Your task to perform on an android device: set default search engine in the chrome app Image 0: 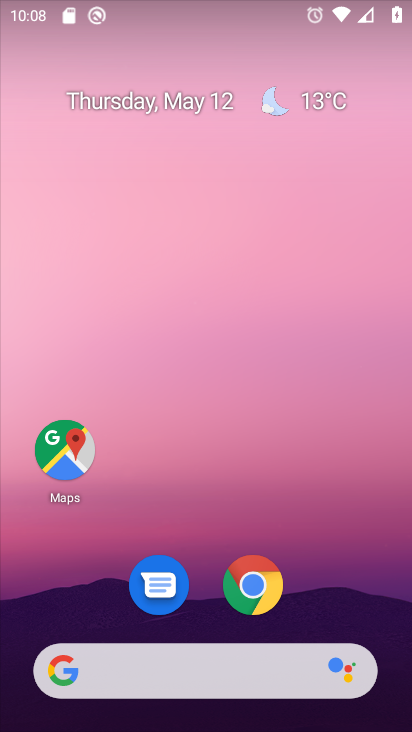
Step 0: click (271, 581)
Your task to perform on an android device: set default search engine in the chrome app Image 1: 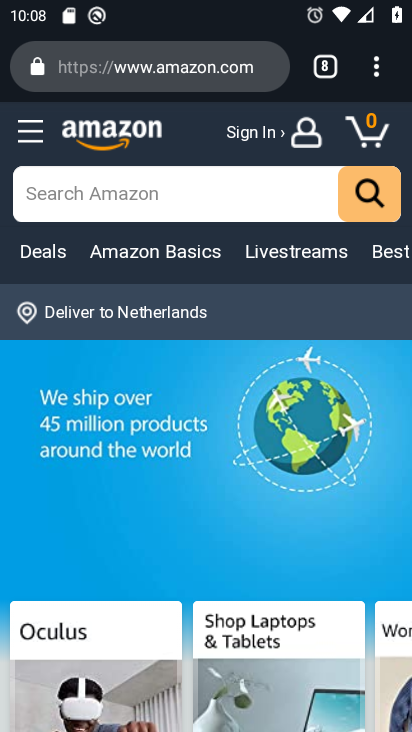
Step 1: click (377, 75)
Your task to perform on an android device: set default search engine in the chrome app Image 2: 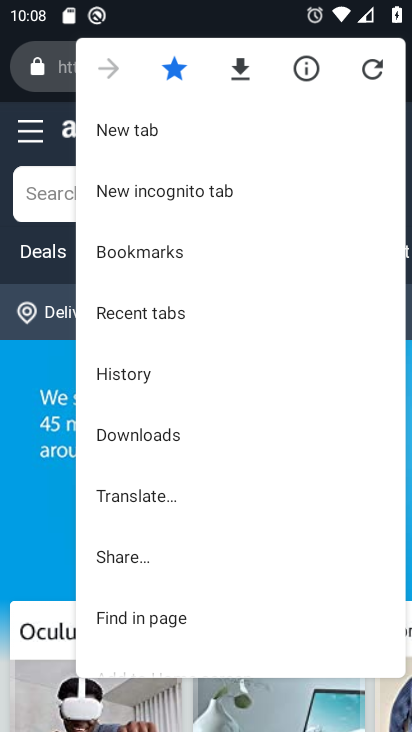
Step 2: drag from (234, 558) to (187, 237)
Your task to perform on an android device: set default search engine in the chrome app Image 3: 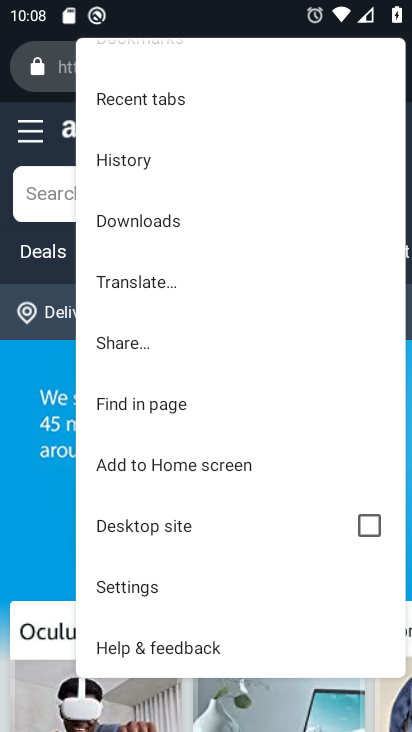
Step 3: click (199, 573)
Your task to perform on an android device: set default search engine in the chrome app Image 4: 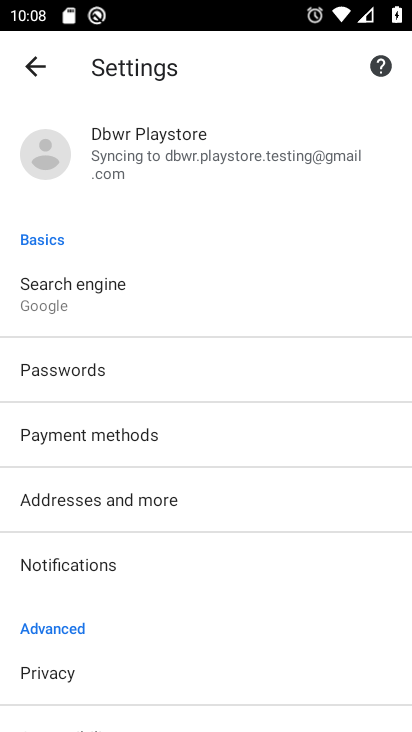
Step 4: click (79, 292)
Your task to perform on an android device: set default search engine in the chrome app Image 5: 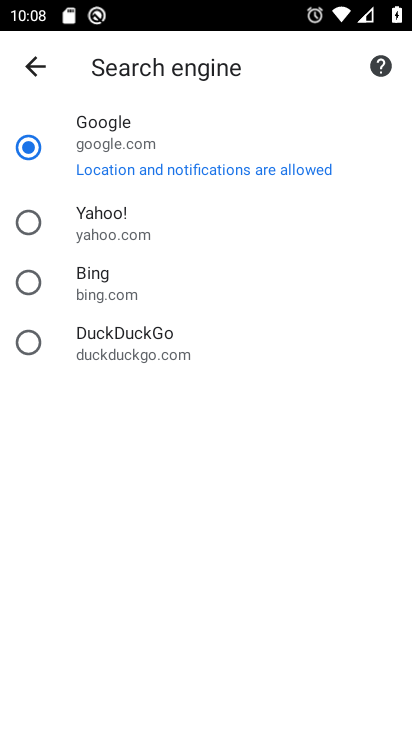
Step 5: task complete